Your task to perform on an android device: Search for Italian restaurants on Maps Image 0: 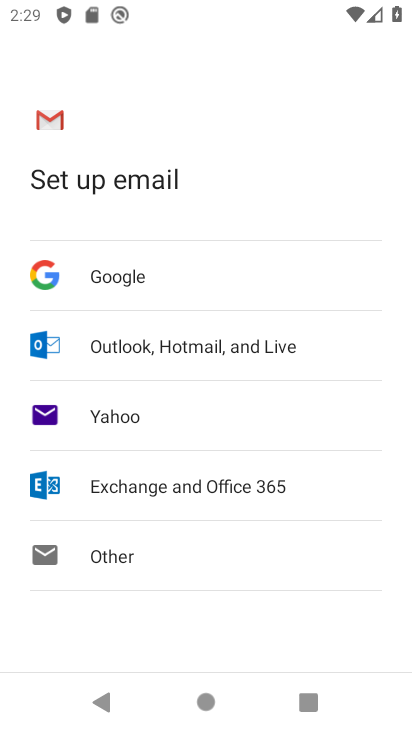
Step 0: press home button
Your task to perform on an android device: Search for Italian restaurants on Maps Image 1: 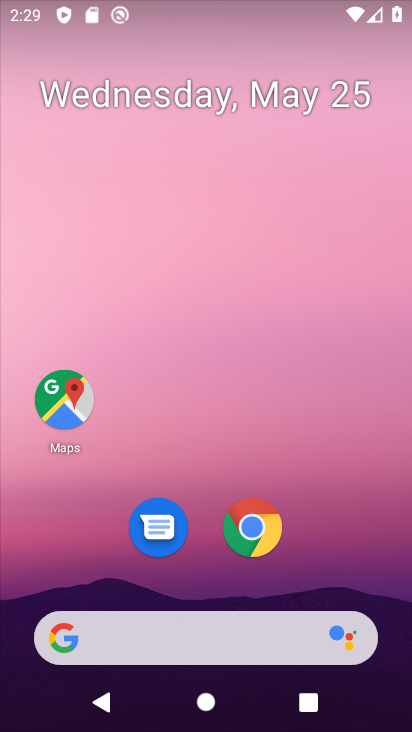
Step 1: click (61, 416)
Your task to perform on an android device: Search for Italian restaurants on Maps Image 2: 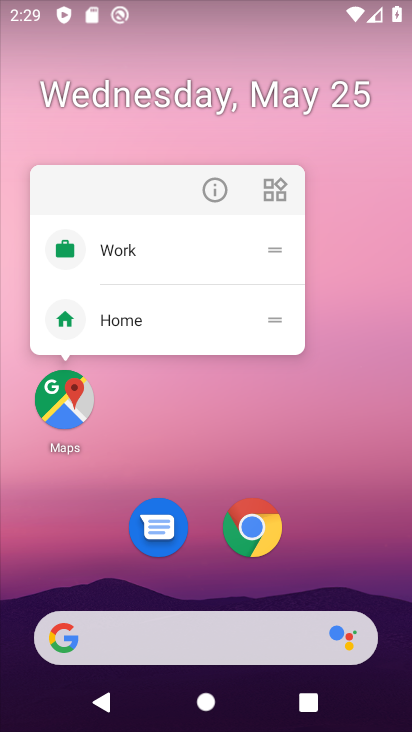
Step 2: click (62, 396)
Your task to perform on an android device: Search for Italian restaurants on Maps Image 3: 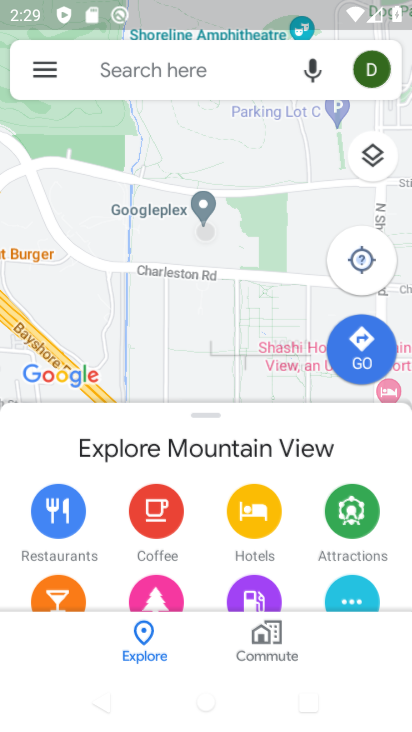
Step 3: click (142, 76)
Your task to perform on an android device: Search for Italian restaurants on Maps Image 4: 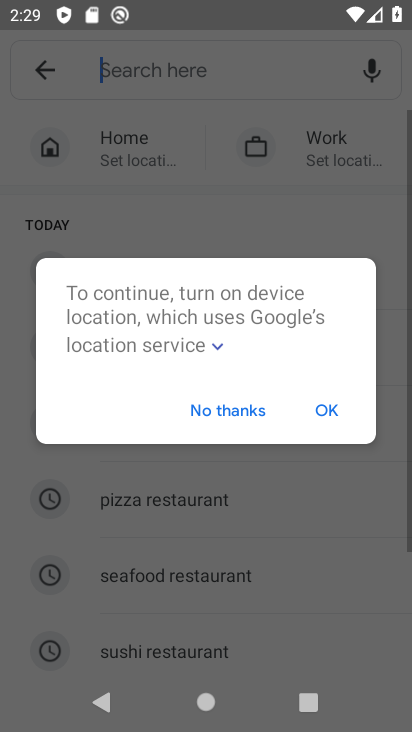
Step 4: click (317, 403)
Your task to perform on an android device: Search for Italian restaurants on Maps Image 5: 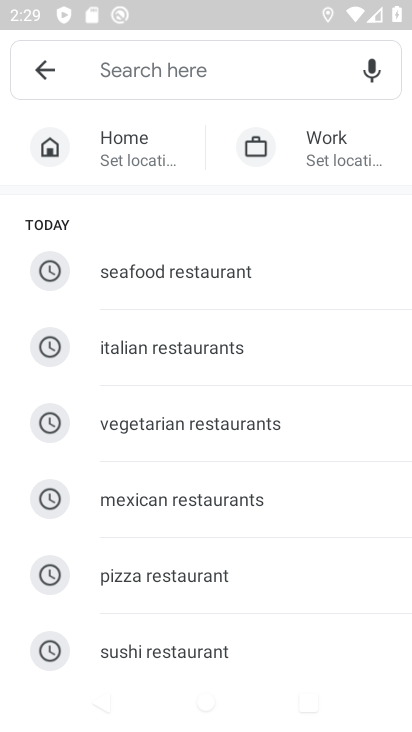
Step 5: click (138, 350)
Your task to perform on an android device: Search for Italian restaurants on Maps Image 6: 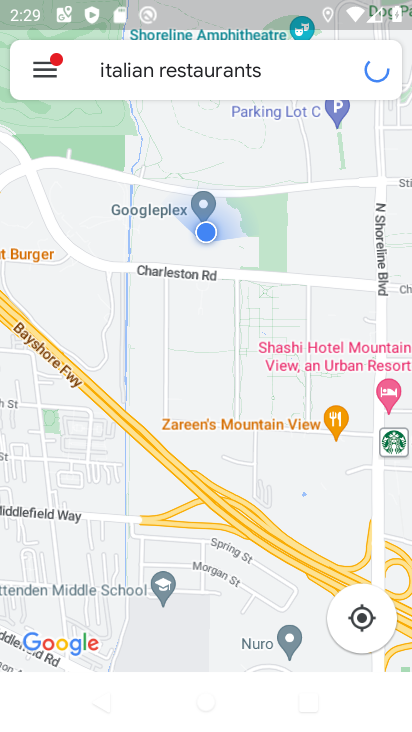
Step 6: task complete